Your task to perform on an android device: Open the calendar app, open the side menu, and click the "Day" option Image 0: 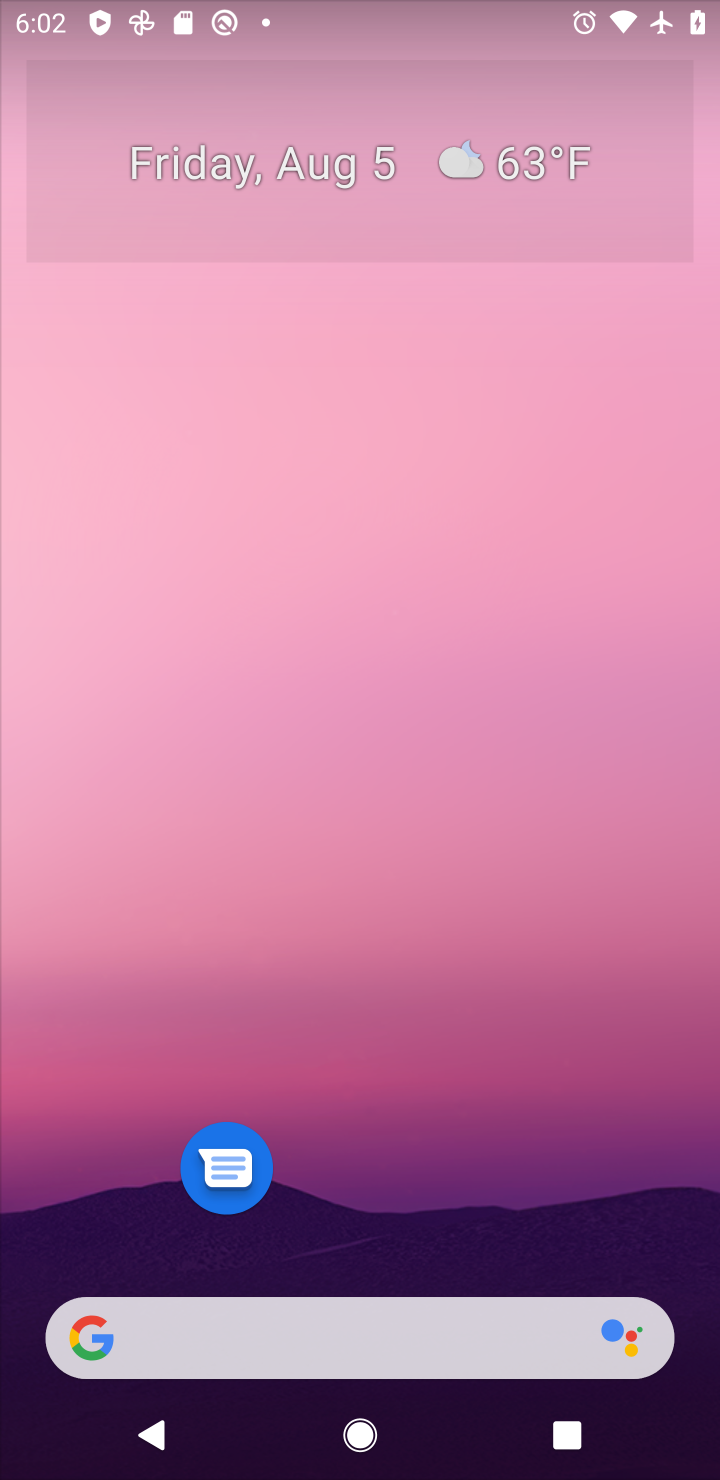
Step 0: press home button
Your task to perform on an android device: Open the calendar app, open the side menu, and click the "Day" option Image 1: 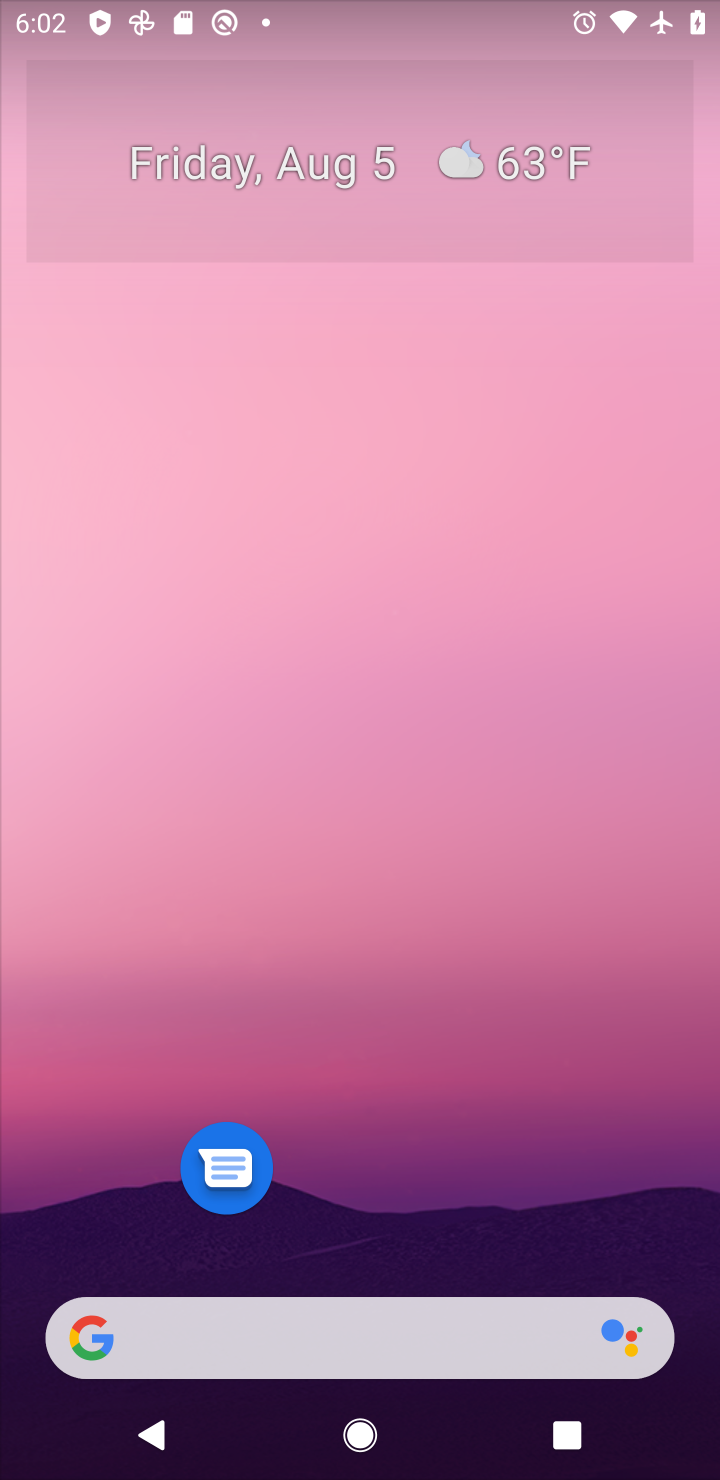
Step 1: drag from (450, 860) to (413, 107)
Your task to perform on an android device: Open the calendar app, open the side menu, and click the "Day" option Image 2: 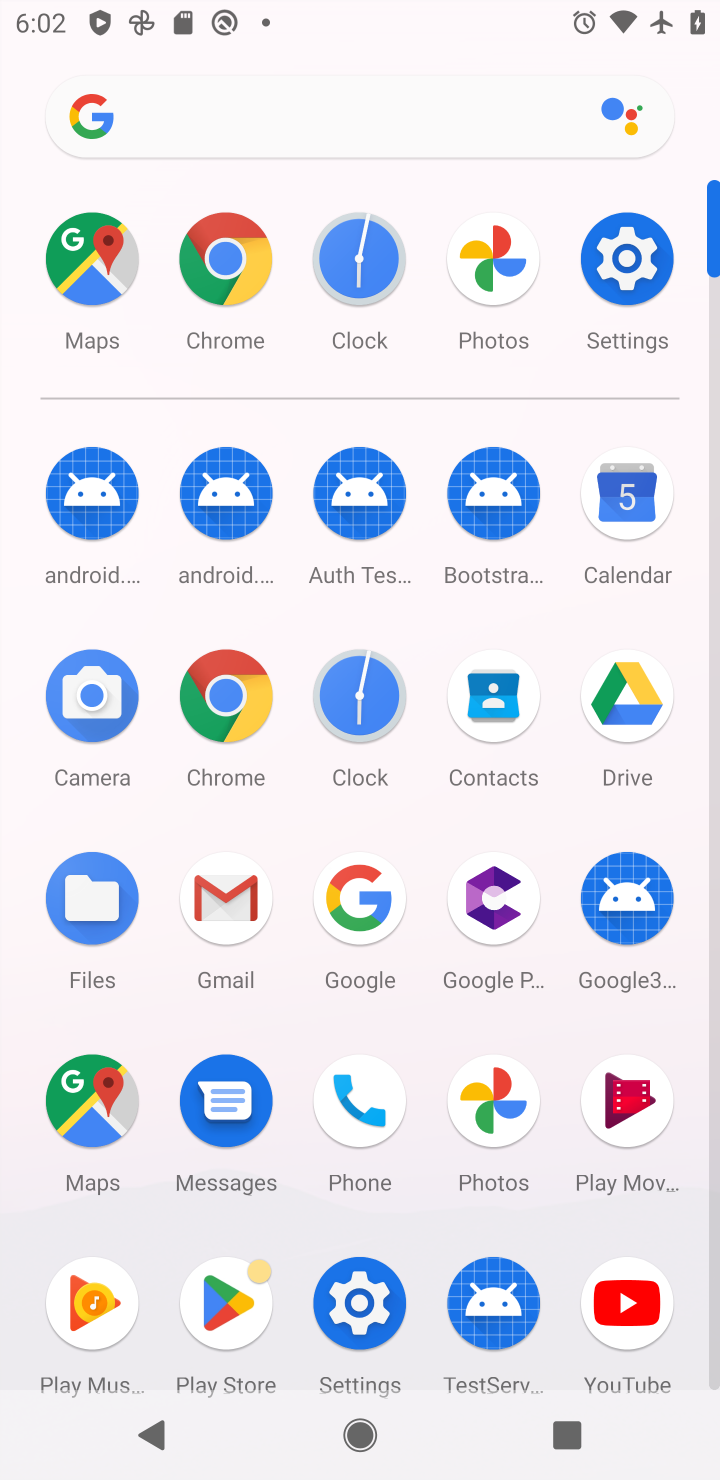
Step 2: click (638, 502)
Your task to perform on an android device: Open the calendar app, open the side menu, and click the "Day" option Image 3: 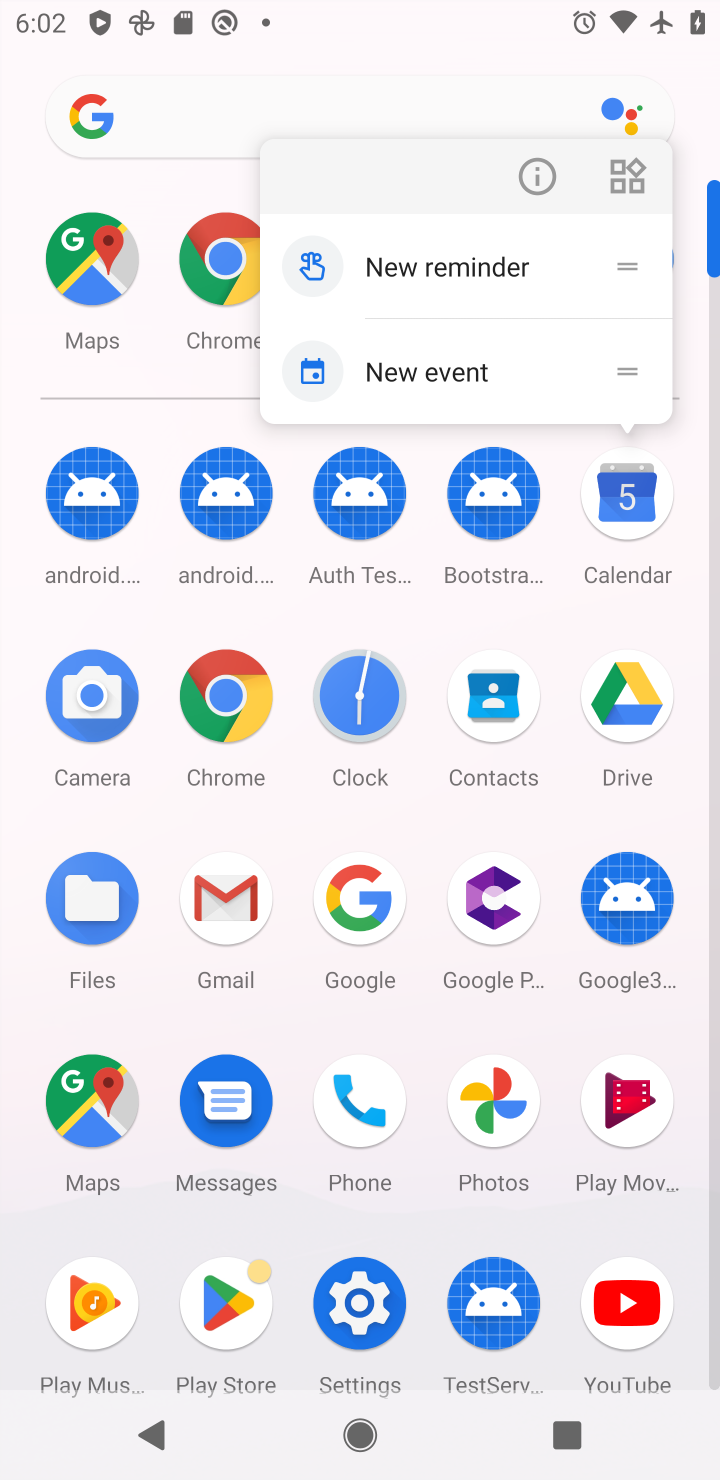
Step 3: click (638, 500)
Your task to perform on an android device: Open the calendar app, open the side menu, and click the "Day" option Image 4: 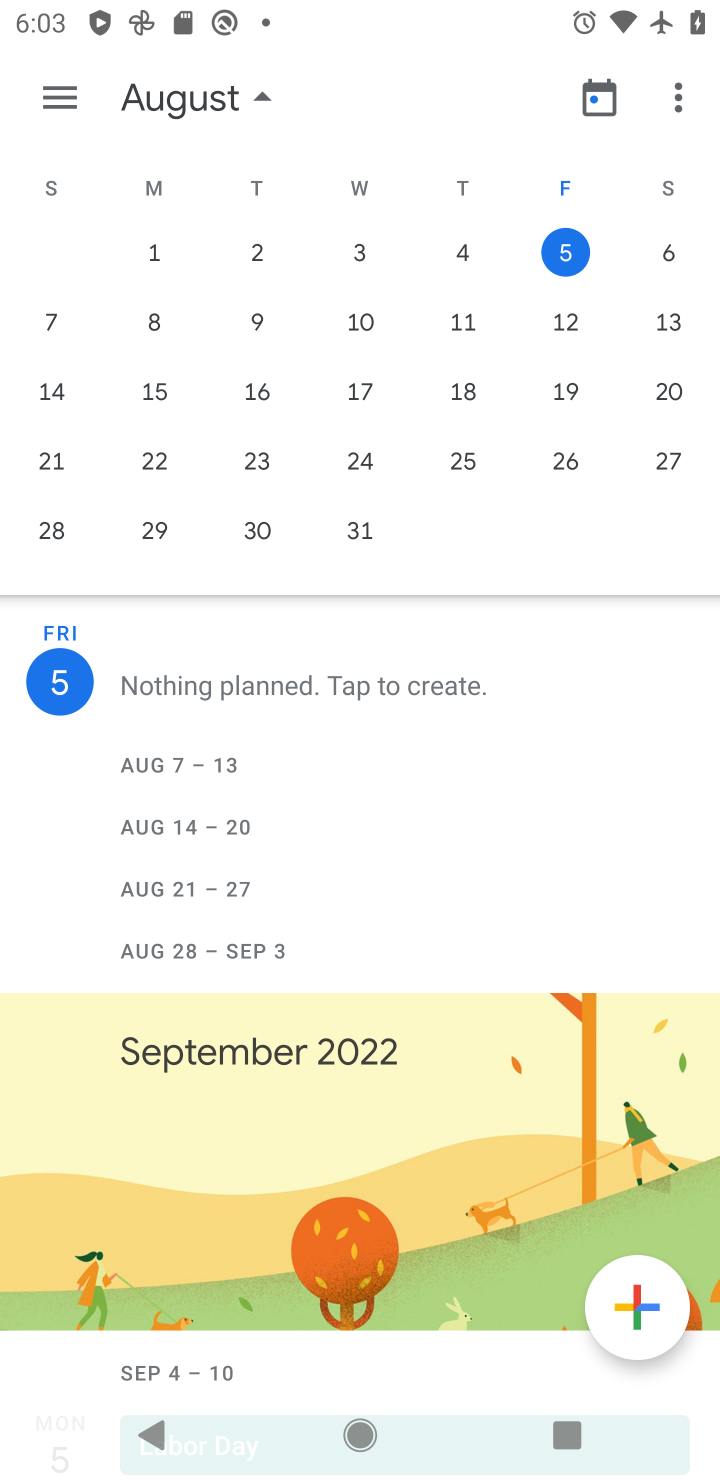
Step 4: click (49, 77)
Your task to perform on an android device: Open the calendar app, open the side menu, and click the "Day" option Image 5: 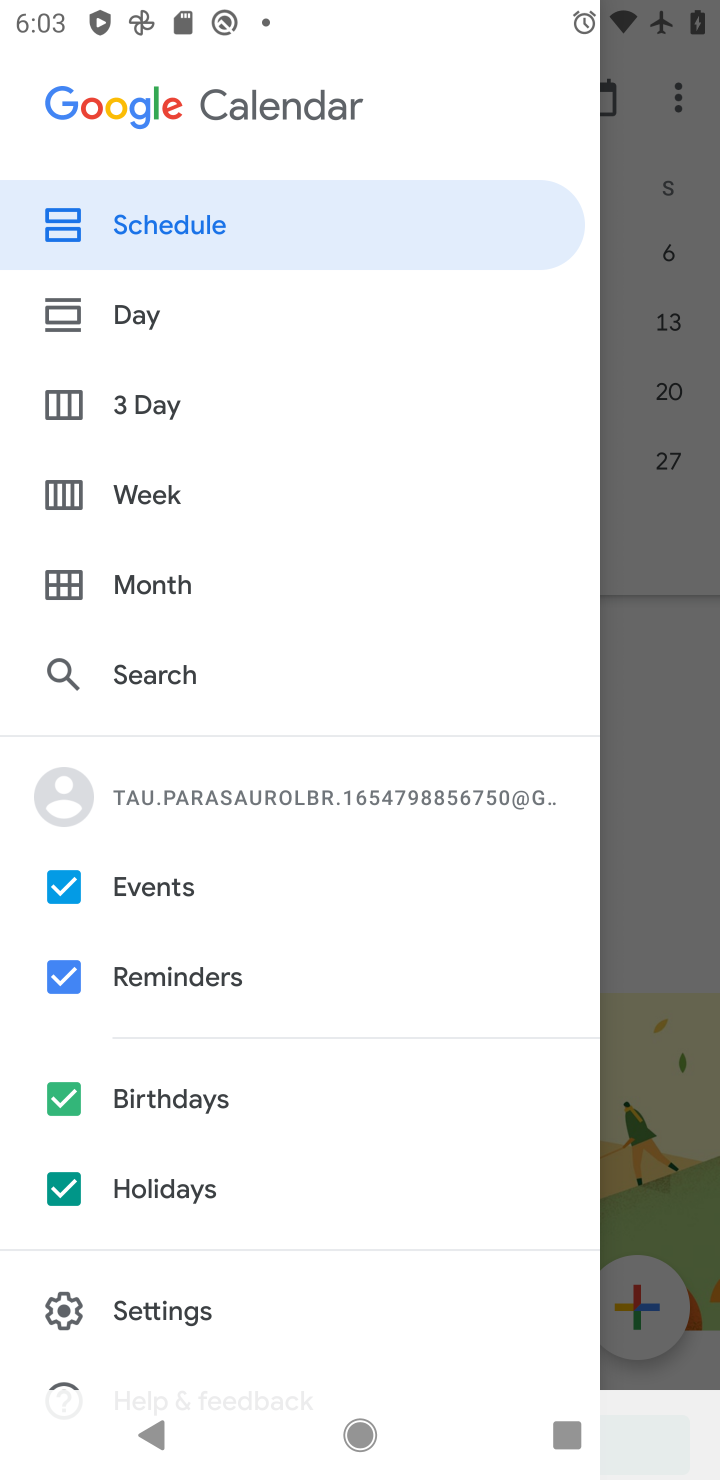
Step 5: click (130, 320)
Your task to perform on an android device: Open the calendar app, open the side menu, and click the "Day" option Image 6: 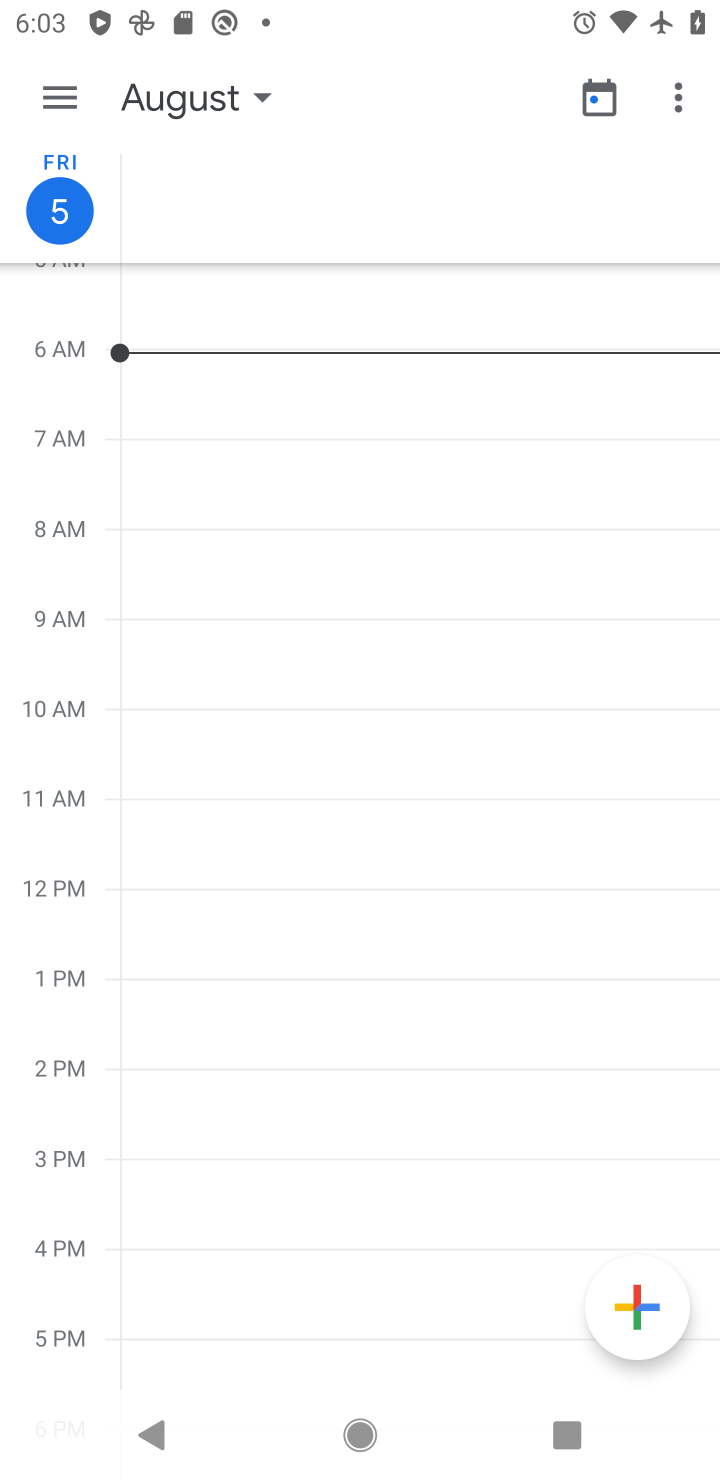
Step 6: task complete